Your task to perform on an android device: snooze an email in the gmail app Image 0: 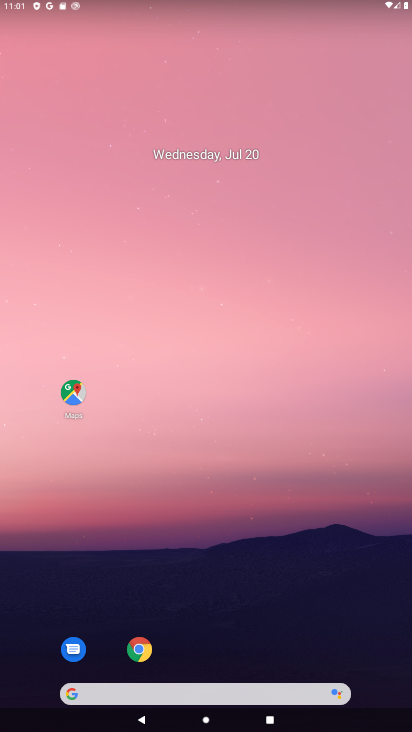
Step 0: drag from (213, 624) to (183, 313)
Your task to perform on an android device: snooze an email in the gmail app Image 1: 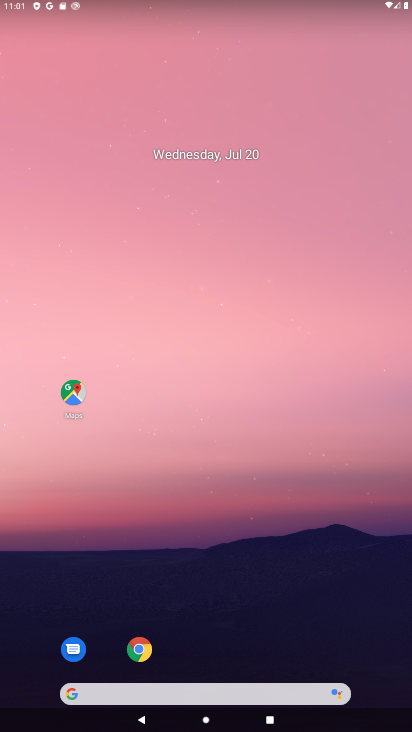
Step 1: drag from (208, 550) to (205, 263)
Your task to perform on an android device: snooze an email in the gmail app Image 2: 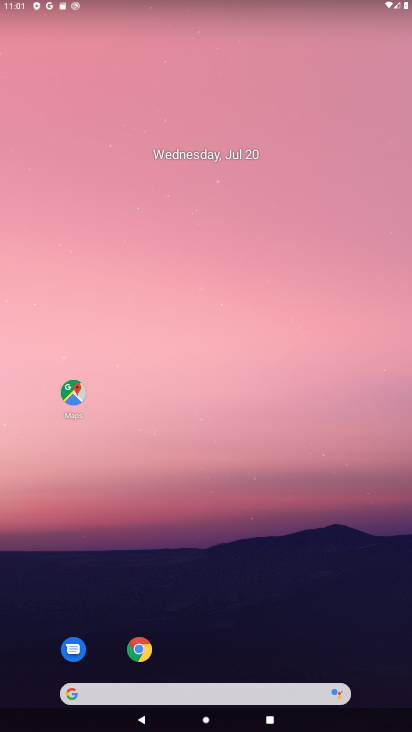
Step 2: drag from (225, 640) to (243, 308)
Your task to perform on an android device: snooze an email in the gmail app Image 3: 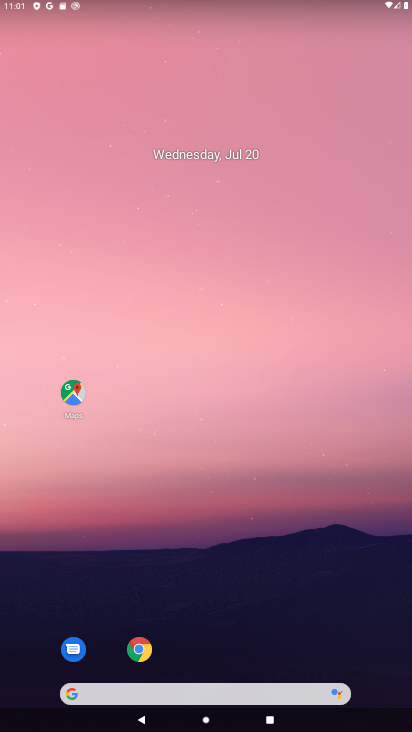
Step 3: drag from (231, 667) to (199, 206)
Your task to perform on an android device: snooze an email in the gmail app Image 4: 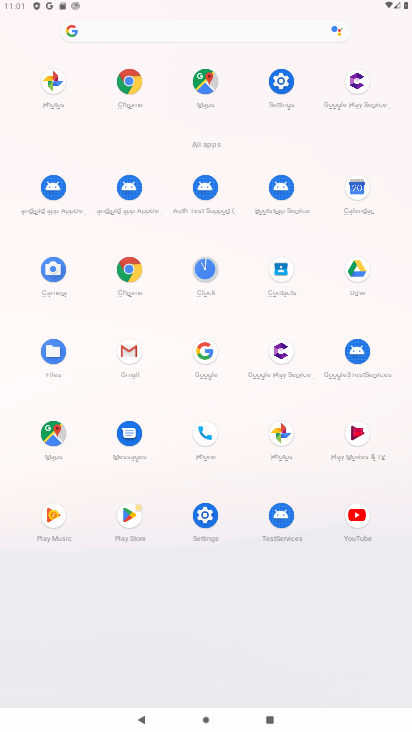
Step 4: click (126, 346)
Your task to perform on an android device: snooze an email in the gmail app Image 5: 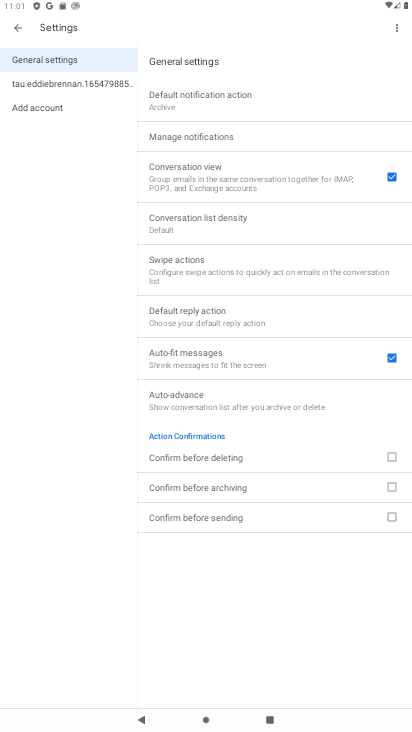
Step 5: click (24, 29)
Your task to perform on an android device: snooze an email in the gmail app Image 6: 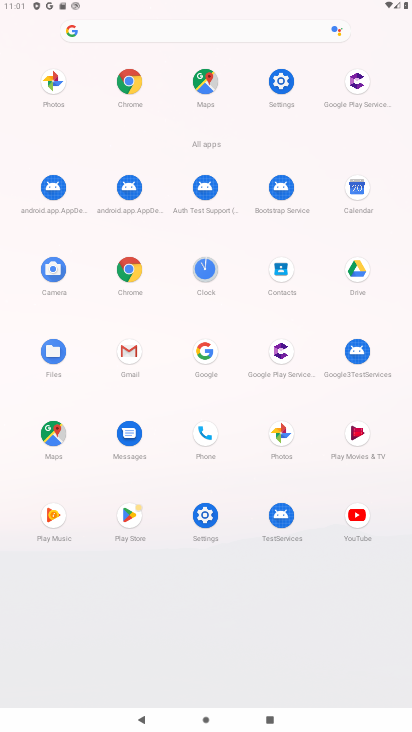
Step 6: click (125, 354)
Your task to perform on an android device: snooze an email in the gmail app Image 7: 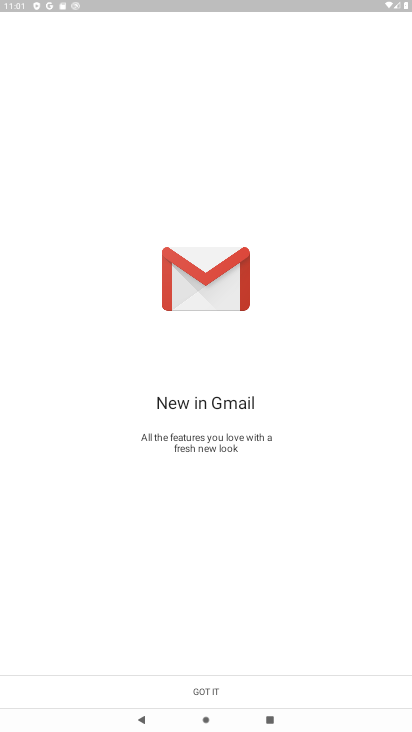
Step 7: click (203, 685)
Your task to perform on an android device: snooze an email in the gmail app Image 8: 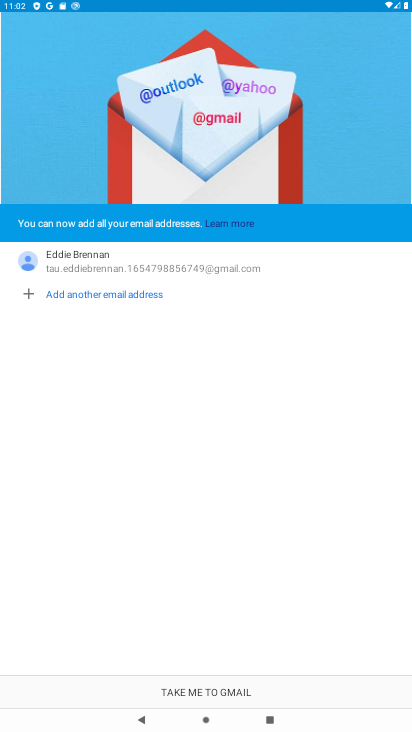
Step 8: click (203, 685)
Your task to perform on an android device: snooze an email in the gmail app Image 9: 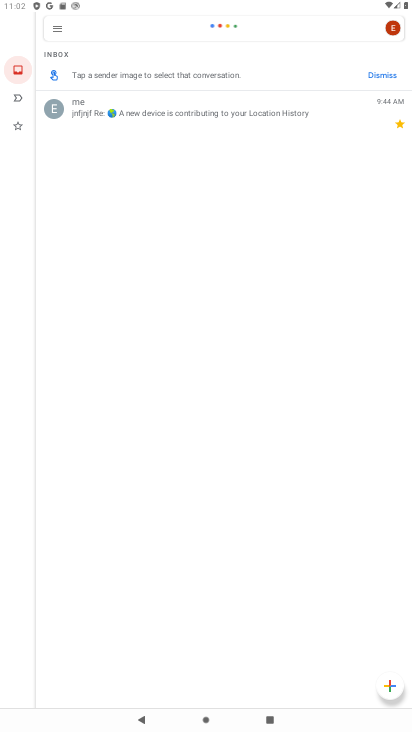
Step 9: click (59, 19)
Your task to perform on an android device: snooze an email in the gmail app Image 10: 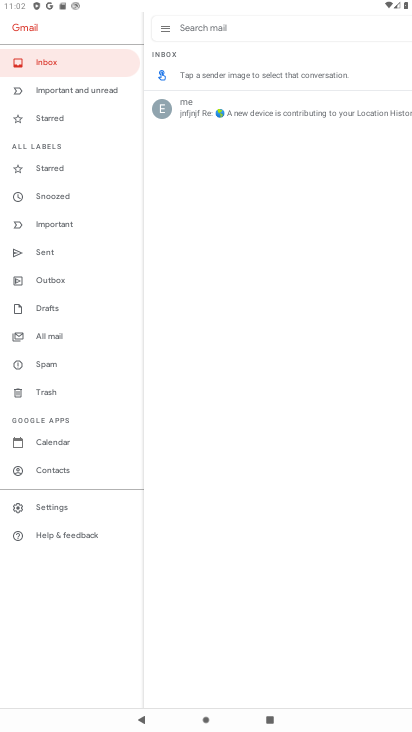
Step 10: click (66, 195)
Your task to perform on an android device: snooze an email in the gmail app Image 11: 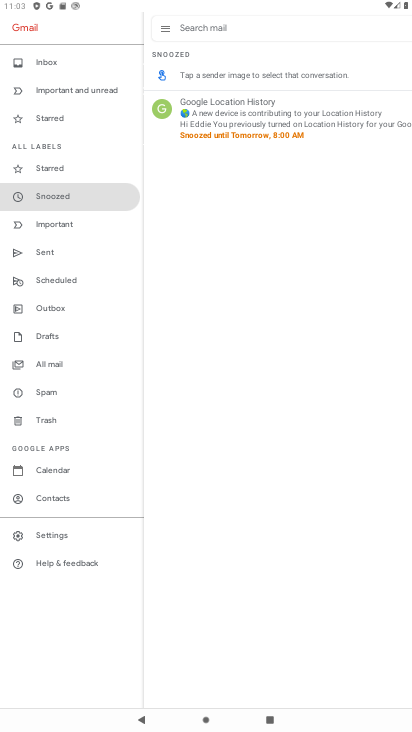
Step 11: task complete